Your task to perform on an android device: all mails in gmail Image 0: 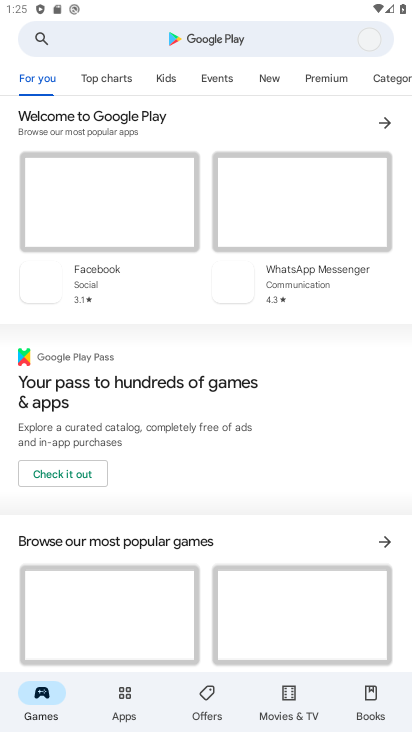
Step 0: press home button
Your task to perform on an android device: all mails in gmail Image 1: 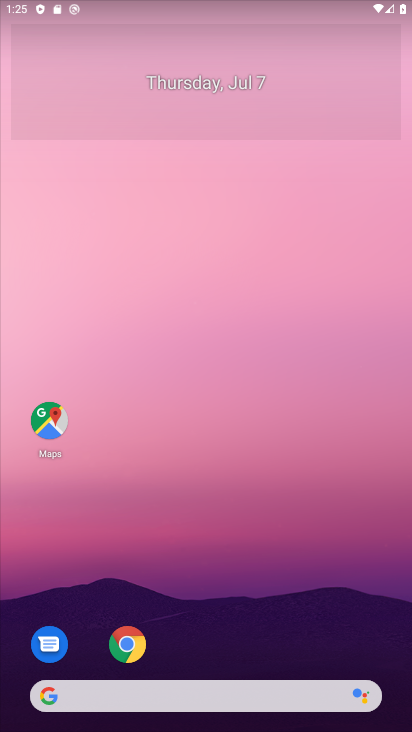
Step 1: drag from (242, 610) to (210, 154)
Your task to perform on an android device: all mails in gmail Image 2: 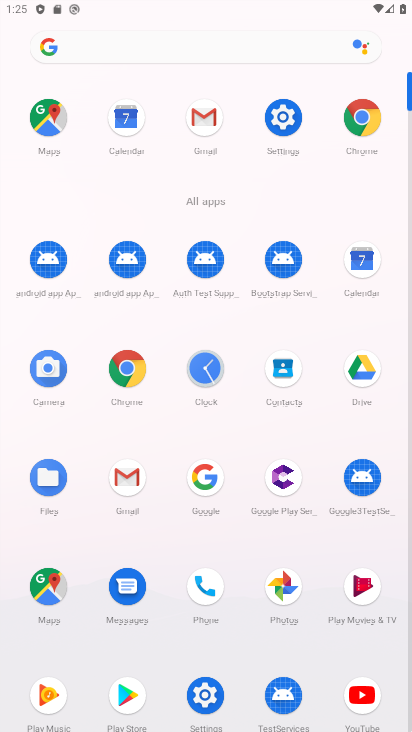
Step 2: click (206, 118)
Your task to perform on an android device: all mails in gmail Image 3: 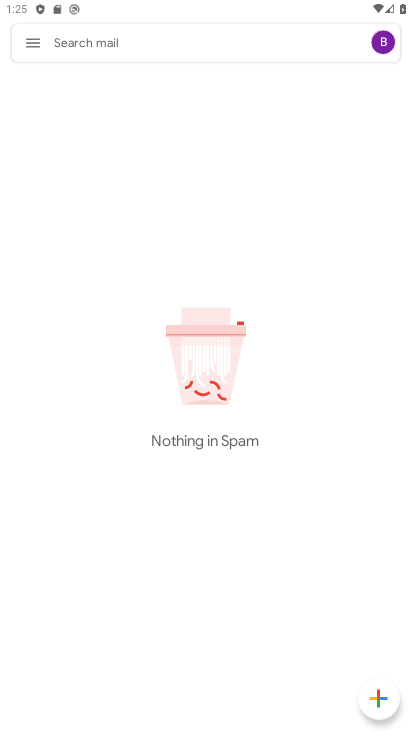
Step 3: click (31, 45)
Your task to perform on an android device: all mails in gmail Image 4: 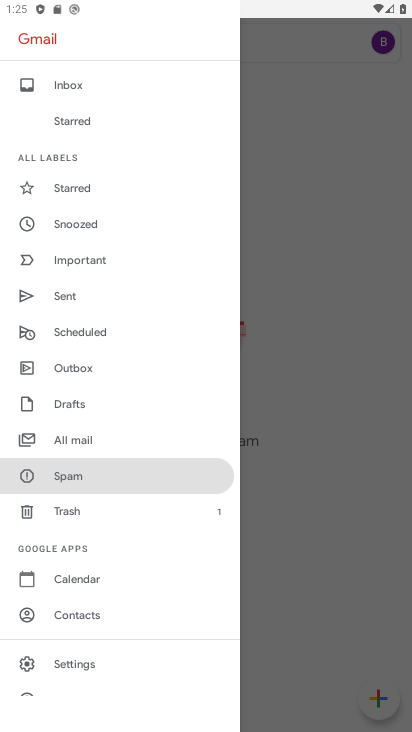
Step 4: click (78, 437)
Your task to perform on an android device: all mails in gmail Image 5: 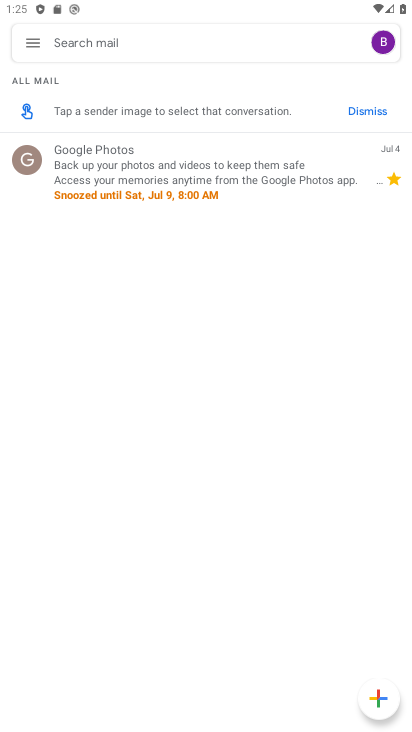
Step 5: task complete